Your task to perform on an android device: Do I have any events this weekend? Image 0: 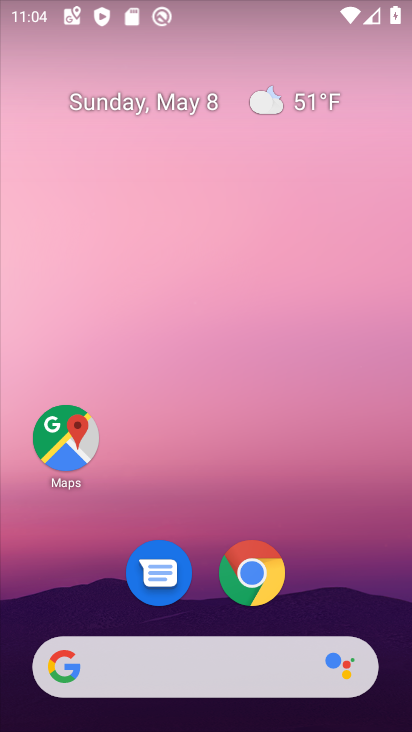
Step 0: drag from (158, 642) to (136, 416)
Your task to perform on an android device: Do I have any events this weekend? Image 1: 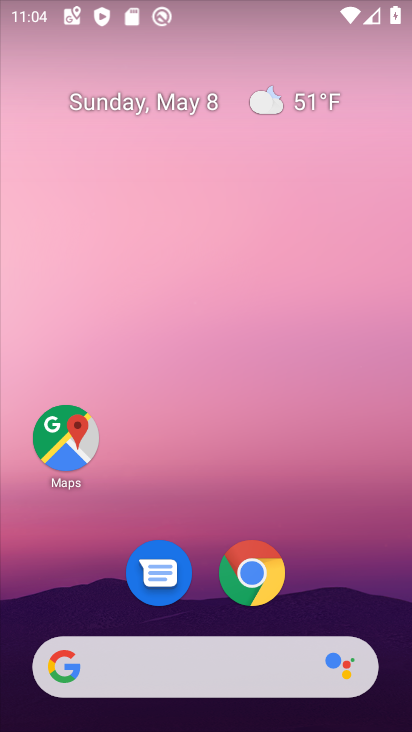
Step 1: drag from (249, 627) to (239, 329)
Your task to perform on an android device: Do I have any events this weekend? Image 2: 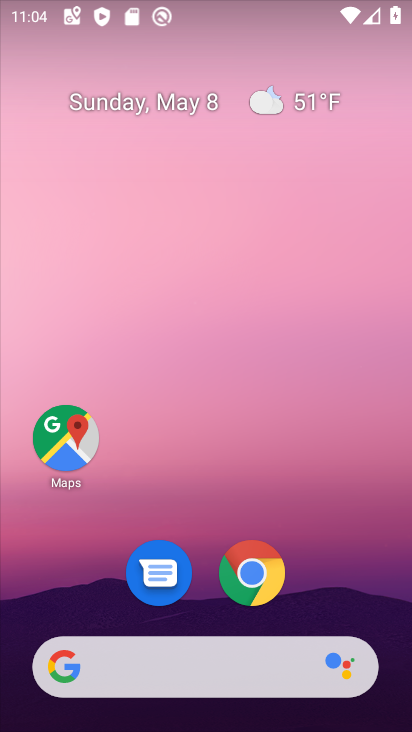
Step 2: drag from (181, 654) to (152, 325)
Your task to perform on an android device: Do I have any events this weekend? Image 3: 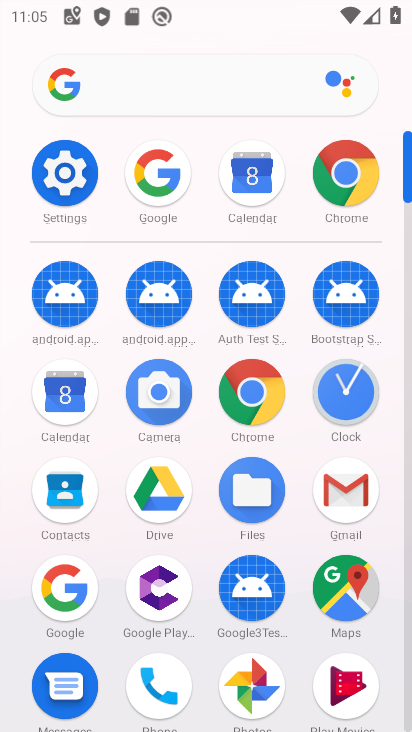
Step 3: click (72, 402)
Your task to perform on an android device: Do I have any events this weekend? Image 4: 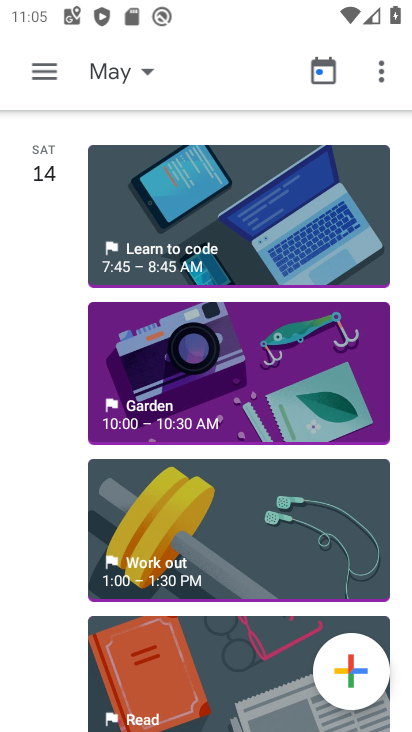
Step 4: click (162, 240)
Your task to perform on an android device: Do I have any events this weekend? Image 5: 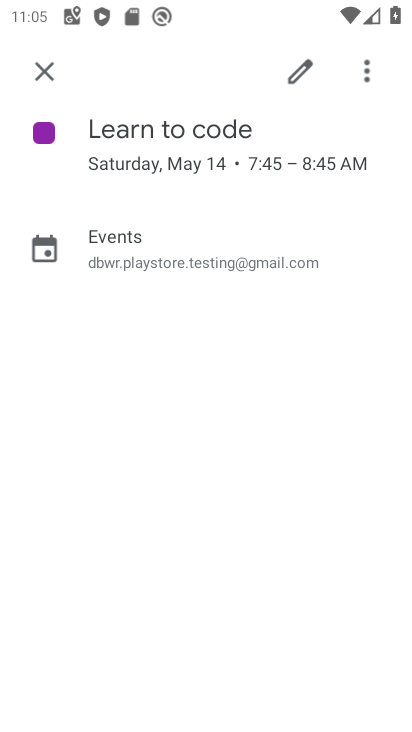
Step 5: task complete